Your task to perform on an android device: toggle airplane mode Image 0: 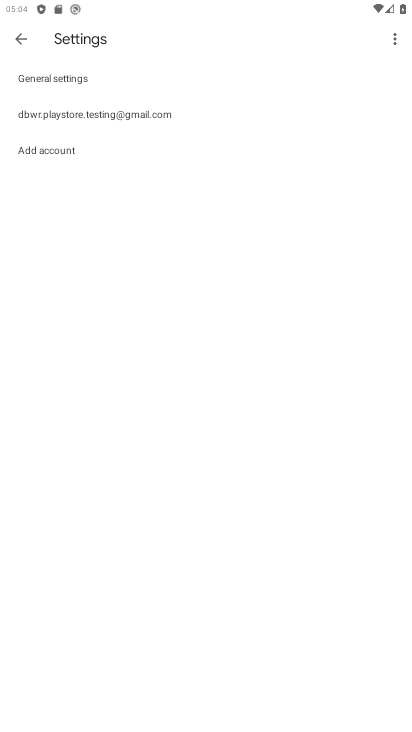
Step 0: drag from (324, 16) to (267, 464)
Your task to perform on an android device: toggle airplane mode Image 1: 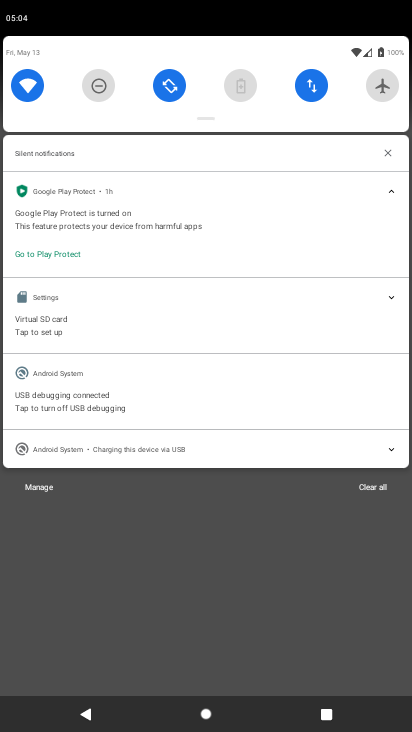
Step 1: click (391, 83)
Your task to perform on an android device: toggle airplane mode Image 2: 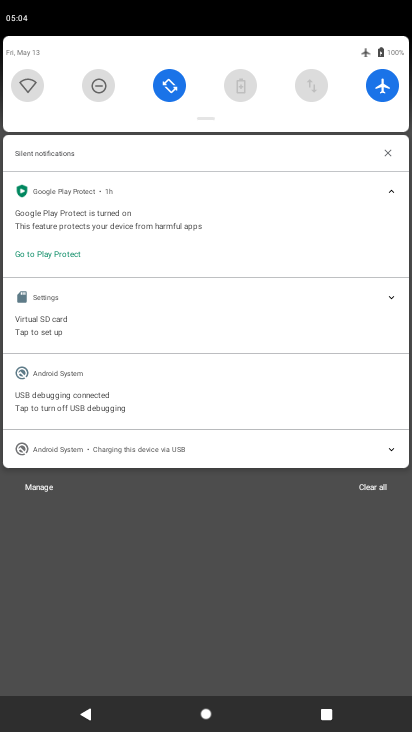
Step 2: task complete